Your task to perform on an android device: What is the capital of Mexico? Image 0: 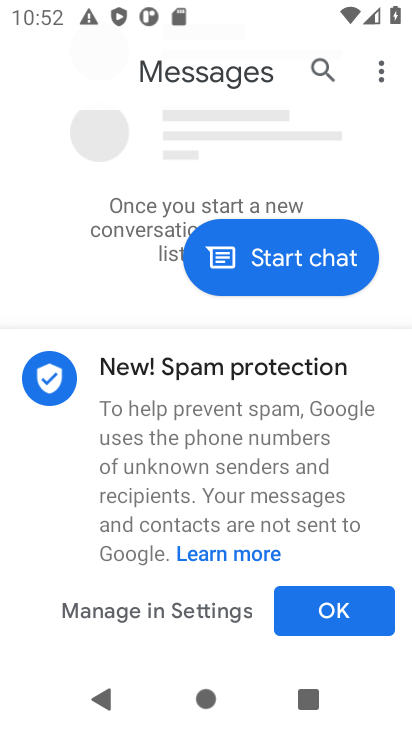
Step 0: press home button
Your task to perform on an android device: What is the capital of Mexico? Image 1: 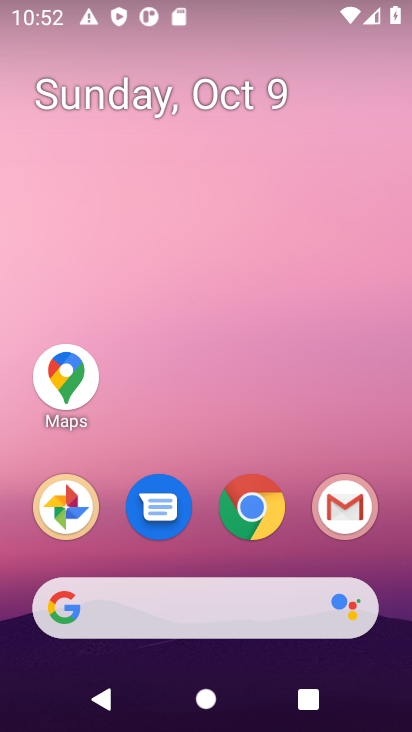
Step 1: click (226, 609)
Your task to perform on an android device: What is the capital of Mexico? Image 2: 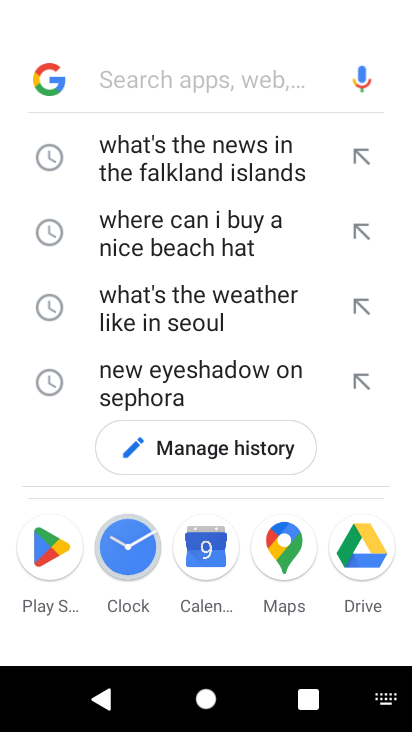
Step 2: press enter
Your task to perform on an android device: What is the capital of Mexico? Image 3: 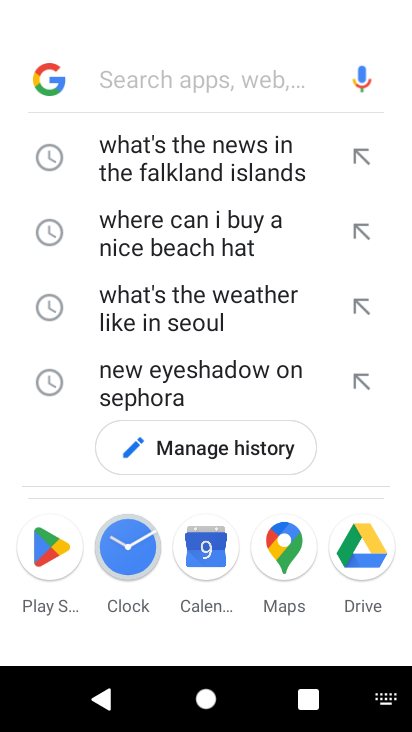
Step 3: type "What is the capital of Mexico"
Your task to perform on an android device: What is the capital of Mexico? Image 4: 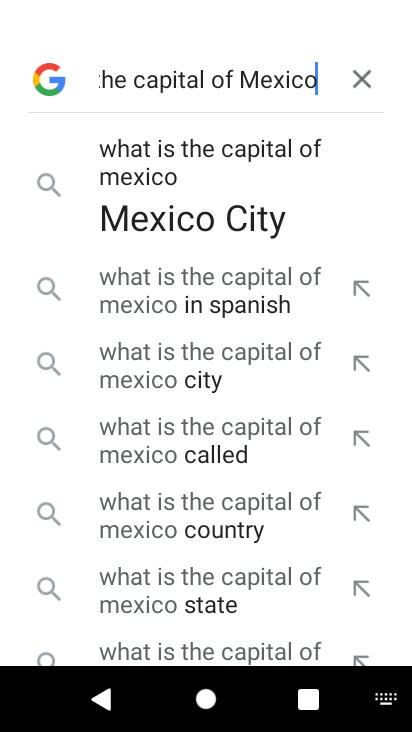
Step 4: click (149, 170)
Your task to perform on an android device: What is the capital of Mexico? Image 5: 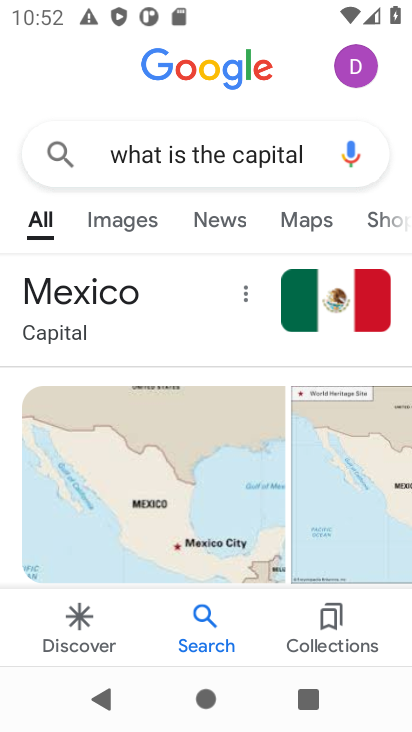
Step 5: task complete